Your task to perform on an android device: set default search engine in the chrome app Image 0: 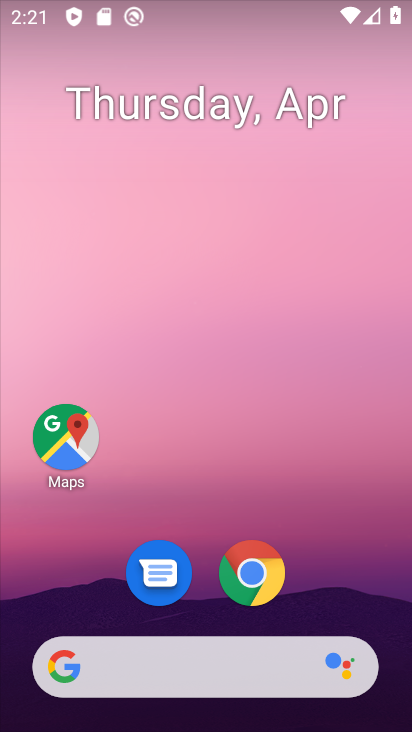
Step 0: drag from (352, 580) to (264, 155)
Your task to perform on an android device: set default search engine in the chrome app Image 1: 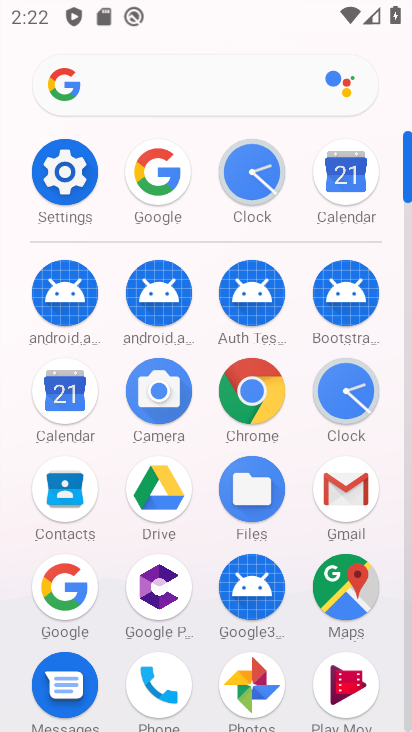
Step 1: click (261, 386)
Your task to perform on an android device: set default search engine in the chrome app Image 2: 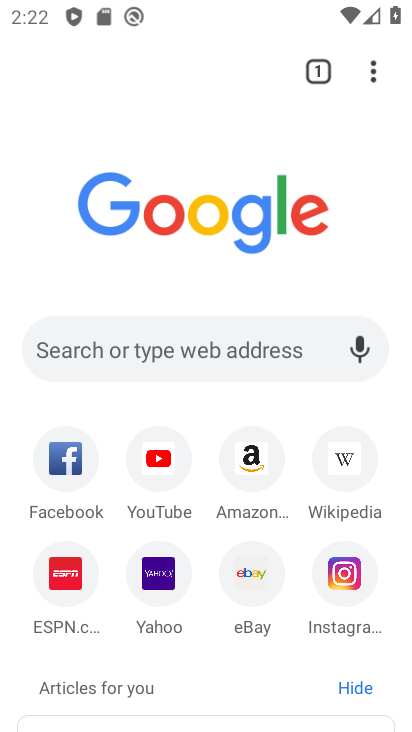
Step 2: click (367, 69)
Your task to perform on an android device: set default search engine in the chrome app Image 3: 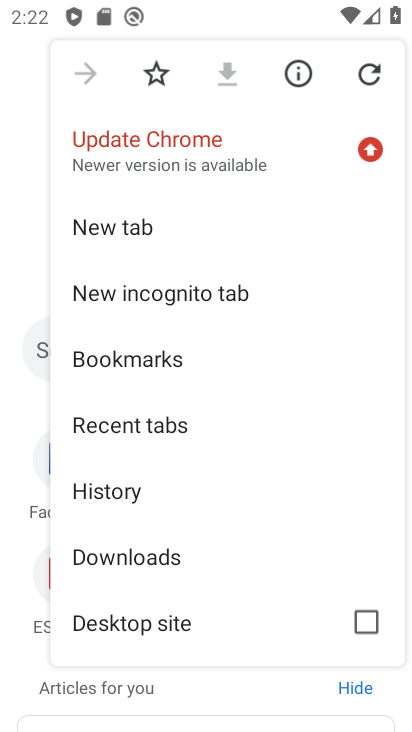
Step 3: drag from (218, 593) to (209, 291)
Your task to perform on an android device: set default search engine in the chrome app Image 4: 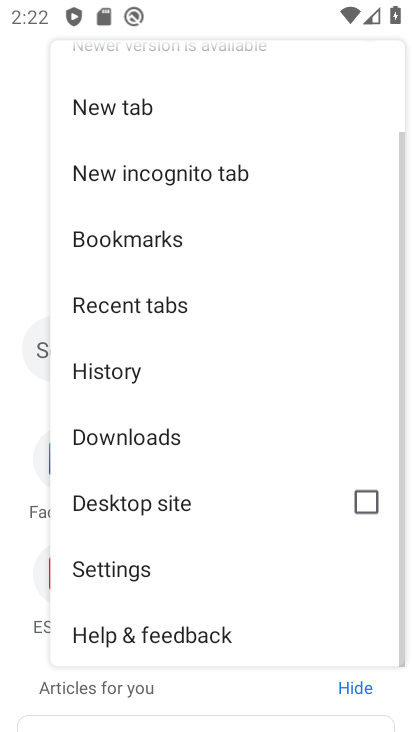
Step 4: click (158, 564)
Your task to perform on an android device: set default search engine in the chrome app Image 5: 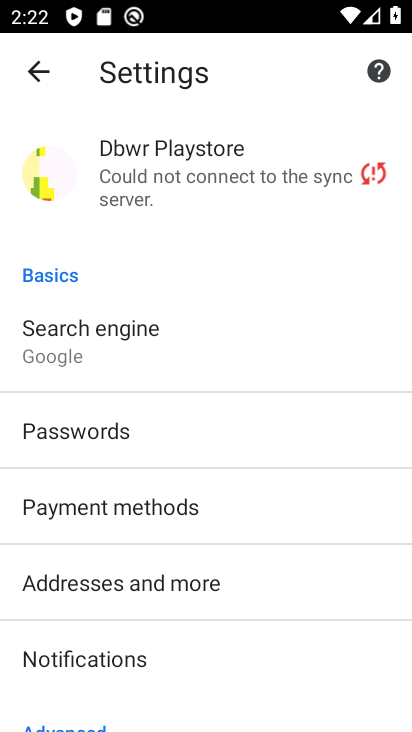
Step 5: click (212, 366)
Your task to perform on an android device: set default search engine in the chrome app Image 6: 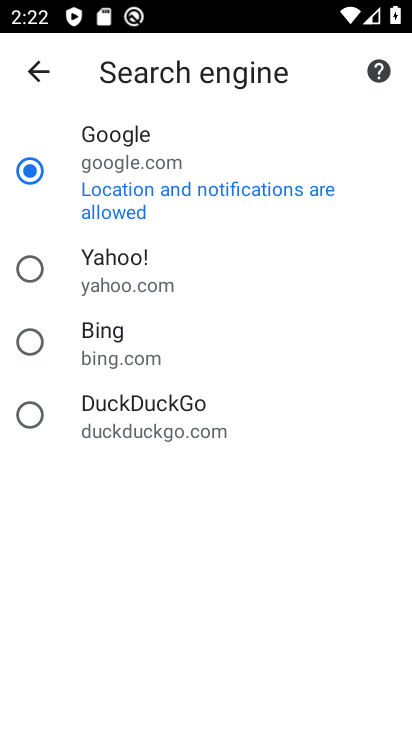
Step 6: click (189, 279)
Your task to perform on an android device: set default search engine in the chrome app Image 7: 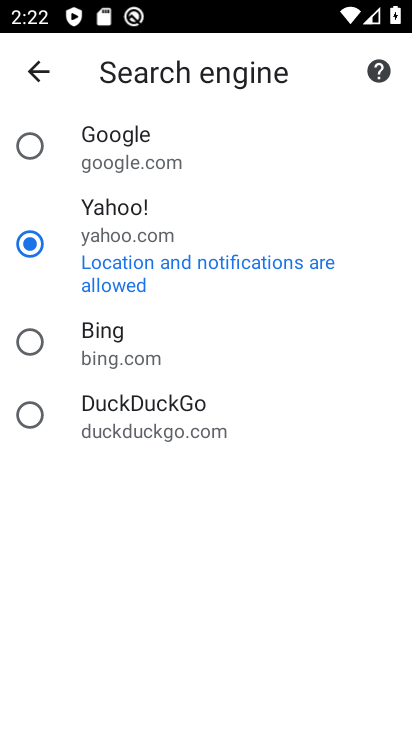
Step 7: task complete